Your task to perform on an android device: When is my next appointment? Image 0: 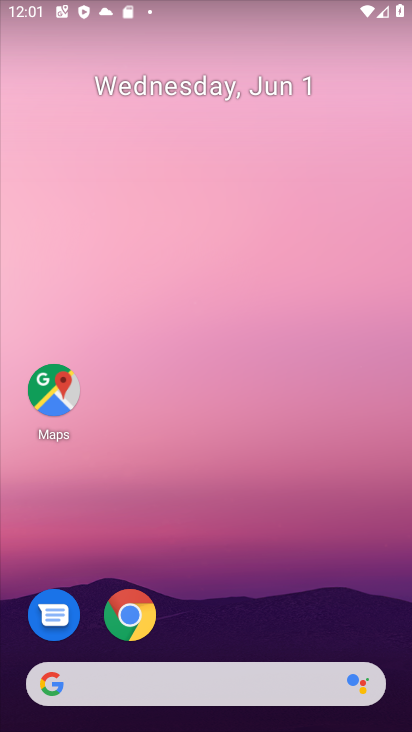
Step 0: task complete